Your task to perform on an android device: Open sound settings Image 0: 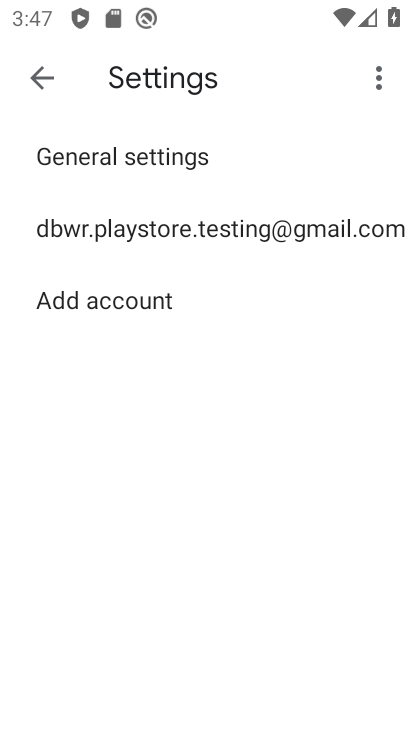
Step 0: press home button
Your task to perform on an android device: Open sound settings Image 1: 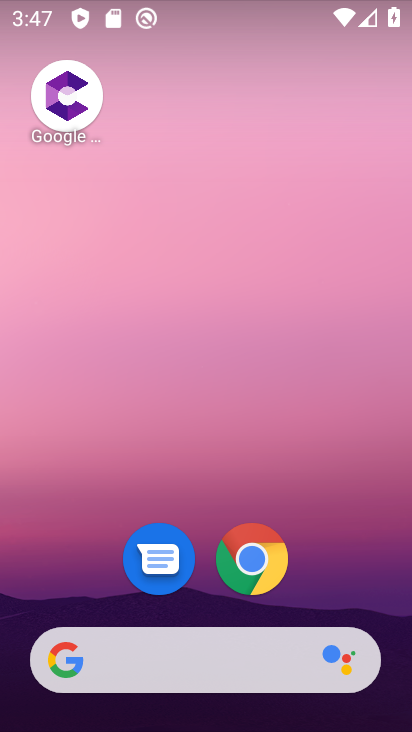
Step 1: drag from (371, 586) to (395, 105)
Your task to perform on an android device: Open sound settings Image 2: 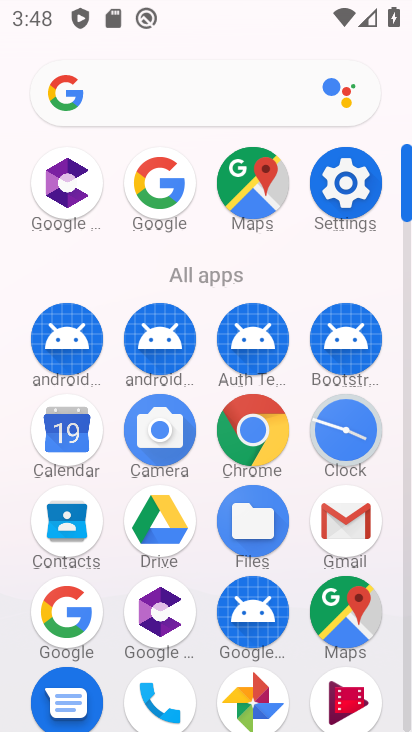
Step 2: click (344, 177)
Your task to perform on an android device: Open sound settings Image 3: 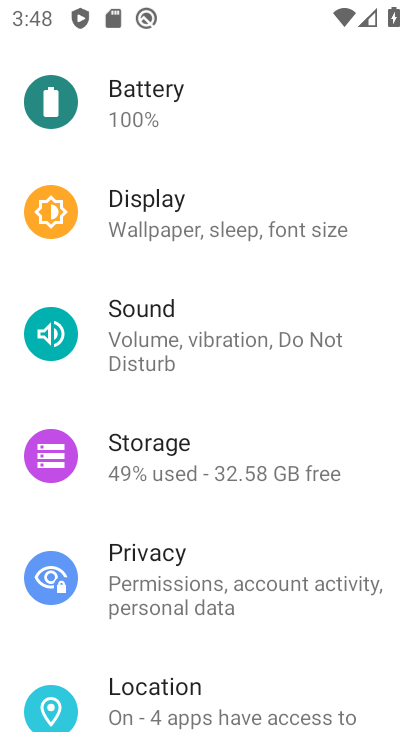
Step 3: click (147, 324)
Your task to perform on an android device: Open sound settings Image 4: 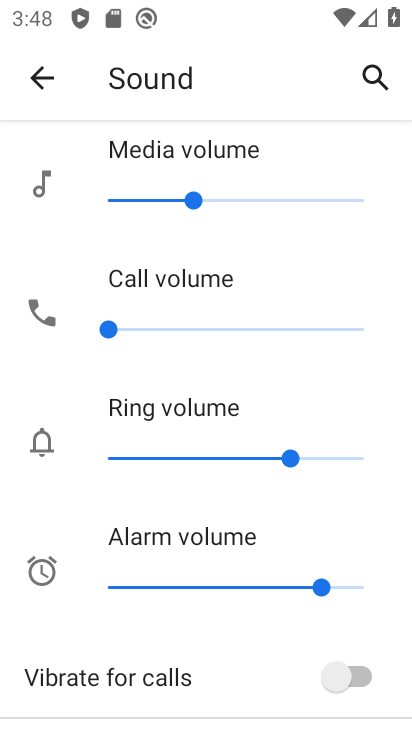
Step 4: task complete